Your task to perform on an android device: turn off smart reply in the gmail app Image 0: 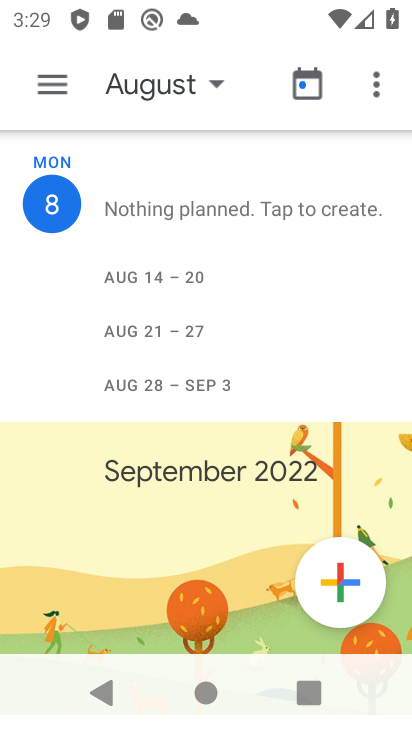
Step 0: press home button
Your task to perform on an android device: turn off smart reply in the gmail app Image 1: 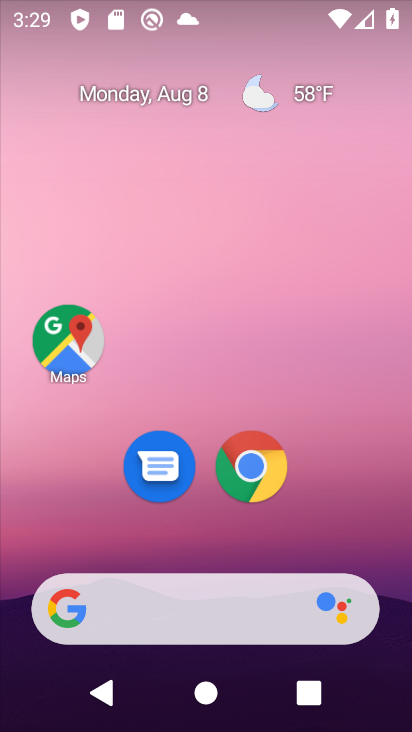
Step 1: drag from (226, 369) to (228, 205)
Your task to perform on an android device: turn off smart reply in the gmail app Image 2: 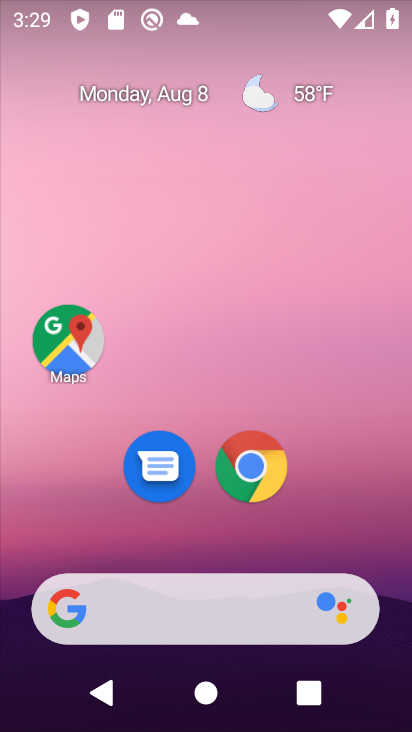
Step 2: drag from (217, 598) to (217, 100)
Your task to perform on an android device: turn off smart reply in the gmail app Image 3: 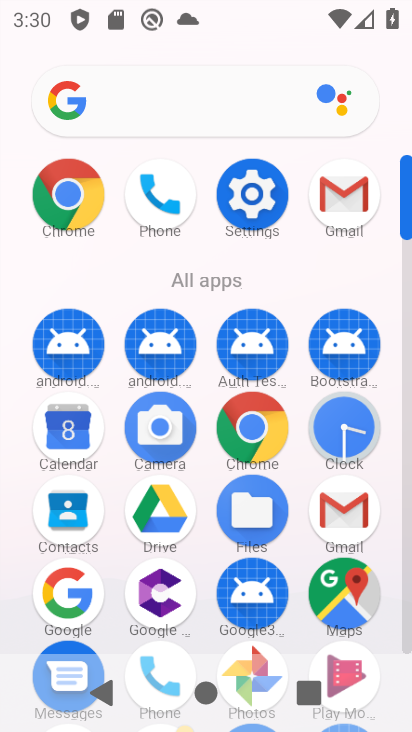
Step 3: click (367, 503)
Your task to perform on an android device: turn off smart reply in the gmail app Image 4: 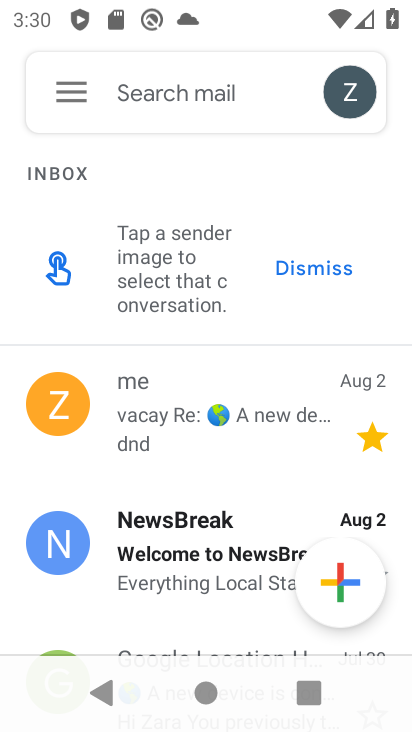
Step 4: click (56, 87)
Your task to perform on an android device: turn off smart reply in the gmail app Image 5: 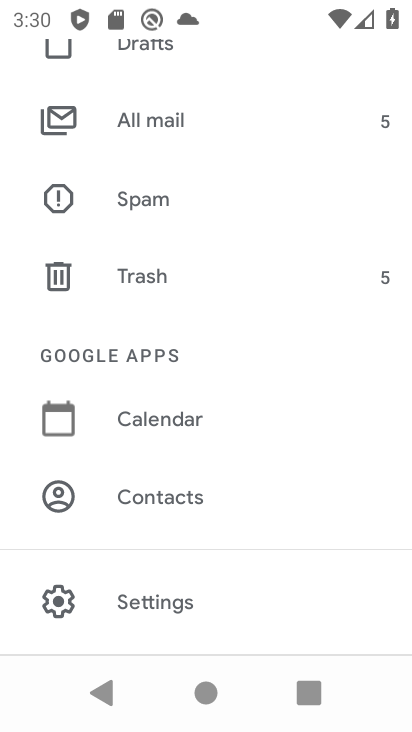
Step 5: click (180, 592)
Your task to perform on an android device: turn off smart reply in the gmail app Image 6: 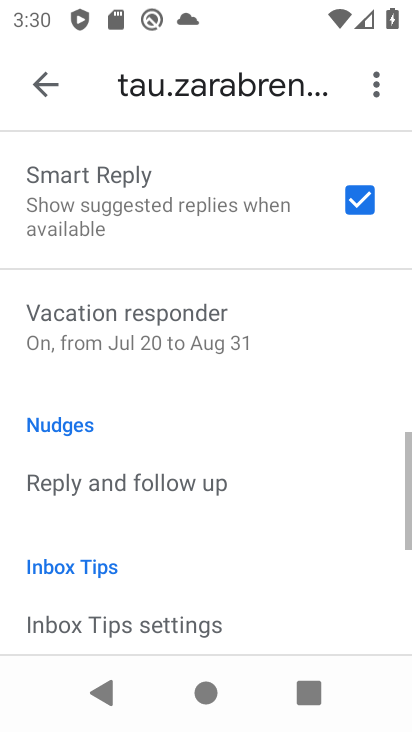
Step 6: drag from (154, 533) to (198, 102)
Your task to perform on an android device: turn off smart reply in the gmail app Image 7: 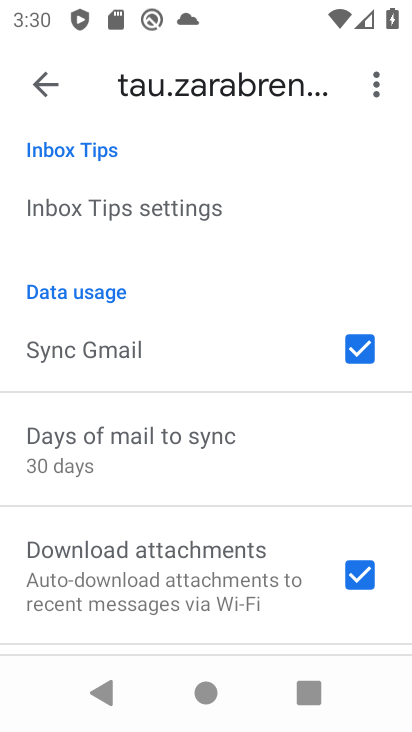
Step 7: drag from (150, 517) to (210, 96)
Your task to perform on an android device: turn off smart reply in the gmail app Image 8: 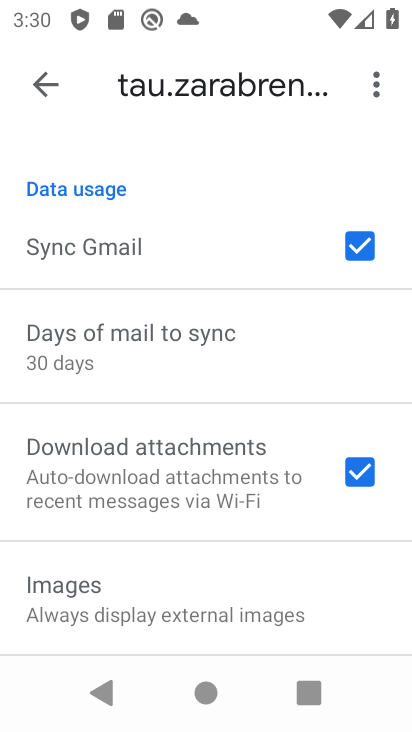
Step 8: drag from (206, 186) to (184, 572)
Your task to perform on an android device: turn off smart reply in the gmail app Image 9: 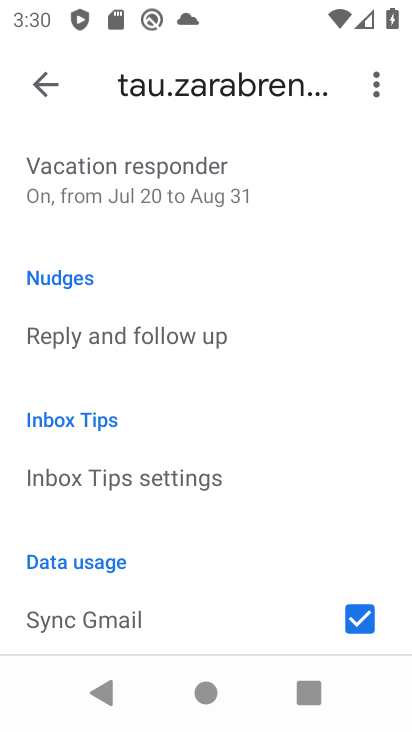
Step 9: drag from (174, 280) to (196, 588)
Your task to perform on an android device: turn off smart reply in the gmail app Image 10: 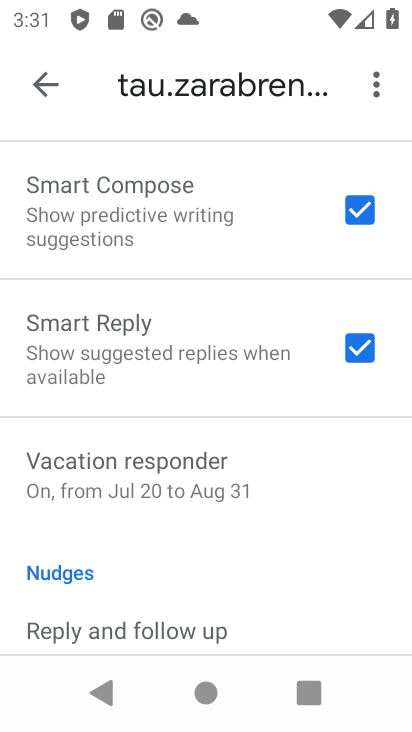
Step 10: click (344, 345)
Your task to perform on an android device: turn off smart reply in the gmail app Image 11: 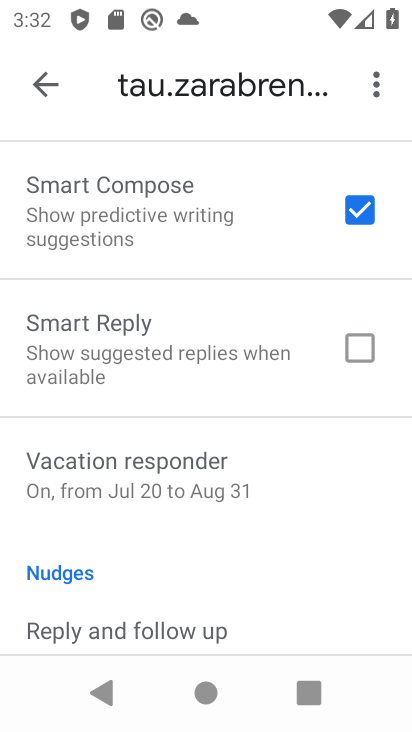
Step 11: task complete